Your task to perform on an android device: open wifi settings Image 0: 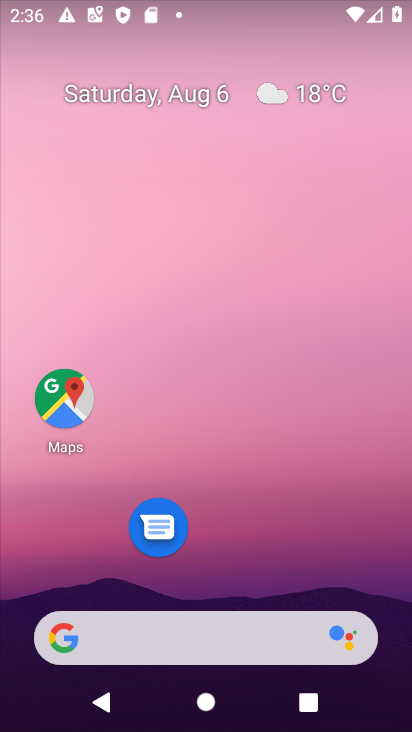
Step 0: drag from (224, 536) to (231, 105)
Your task to perform on an android device: open wifi settings Image 1: 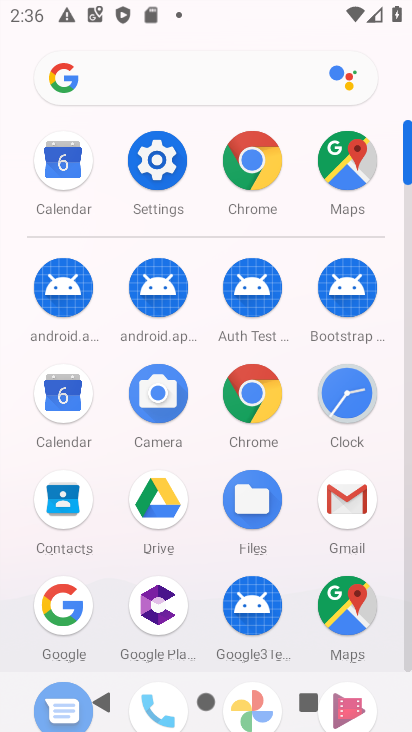
Step 1: click (170, 181)
Your task to perform on an android device: open wifi settings Image 2: 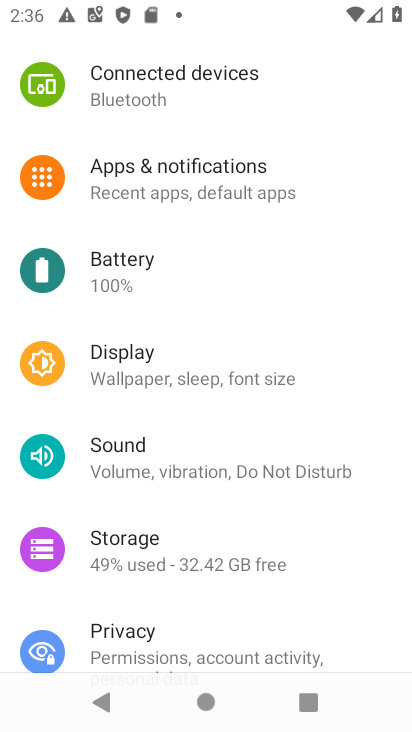
Step 2: drag from (221, 125) to (174, 728)
Your task to perform on an android device: open wifi settings Image 3: 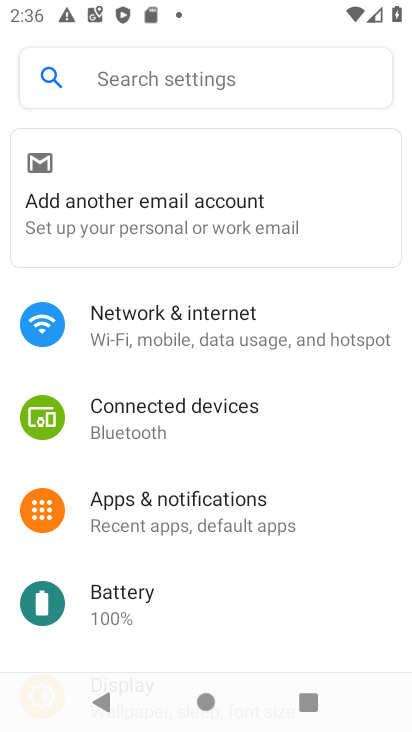
Step 3: click (208, 345)
Your task to perform on an android device: open wifi settings Image 4: 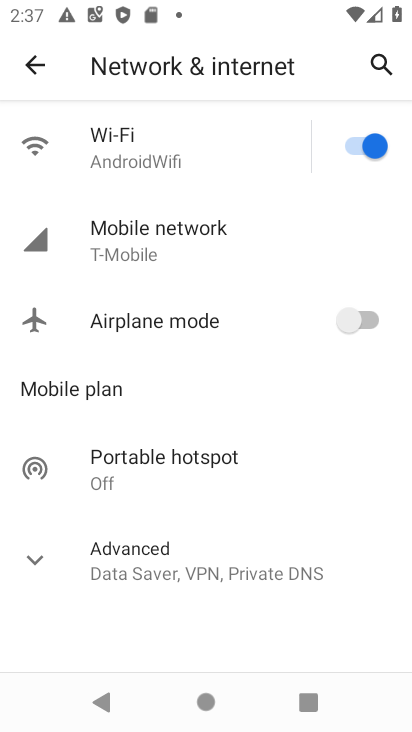
Step 4: click (166, 131)
Your task to perform on an android device: open wifi settings Image 5: 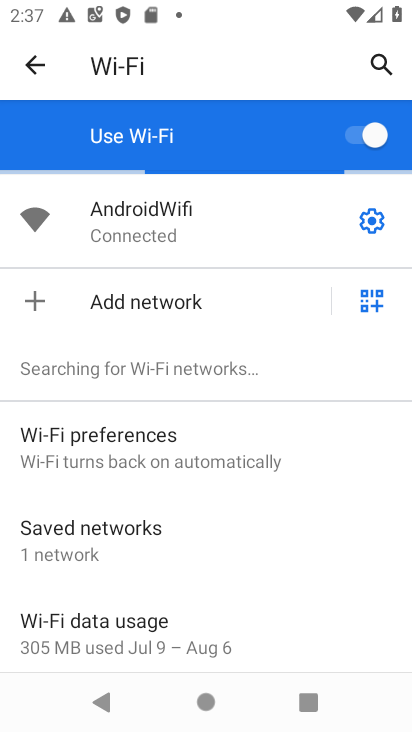
Step 5: task complete